Your task to perform on an android device: stop showing notifications on the lock screen Image 0: 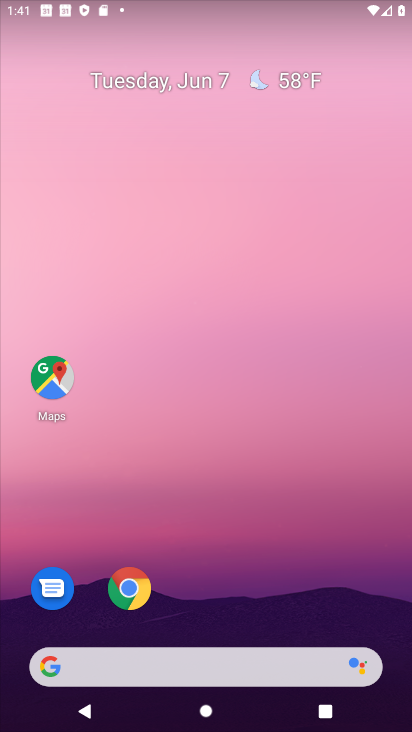
Step 0: click (135, 600)
Your task to perform on an android device: stop showing notifications on the lock screen Image 1: 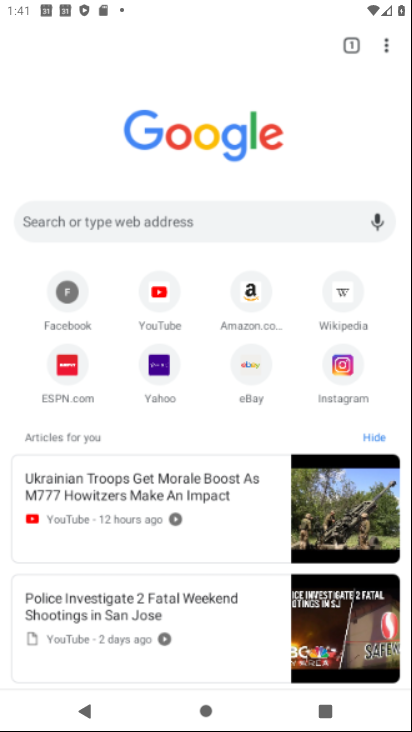
Step 1: task complete